Your task to perform on an android device: Open the phone app and click the voicemail tab. Image 0: 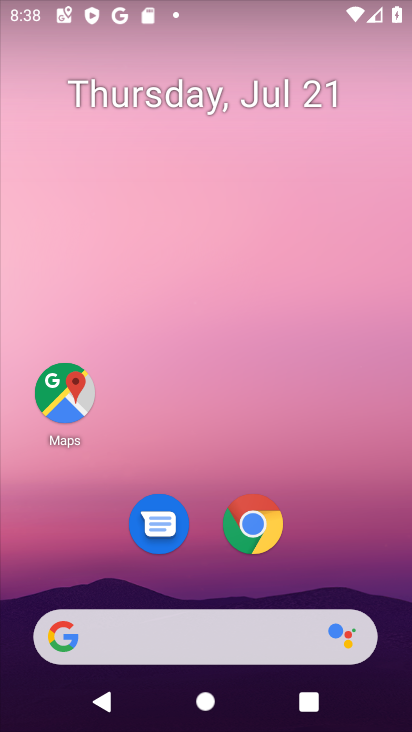
Step 0: press home button
Your task to perform on an android device: Open the phone app and click the voicemail tab. Image 1: 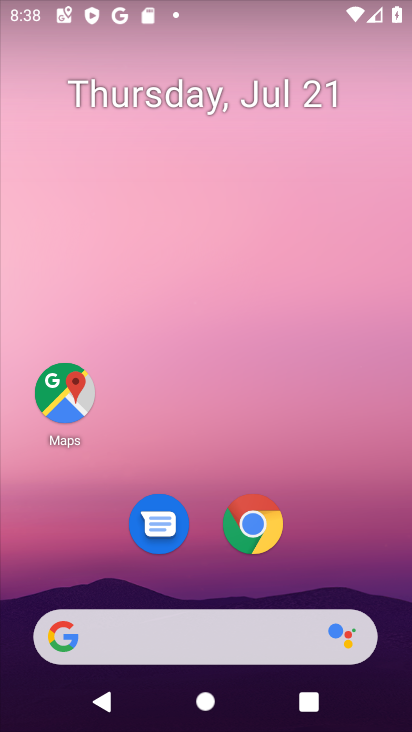
Step 1: drag from (161, 646) to (264, 244)
Your task to perform on an android device: Open the phone app and click the voicemail tab. Image 2: 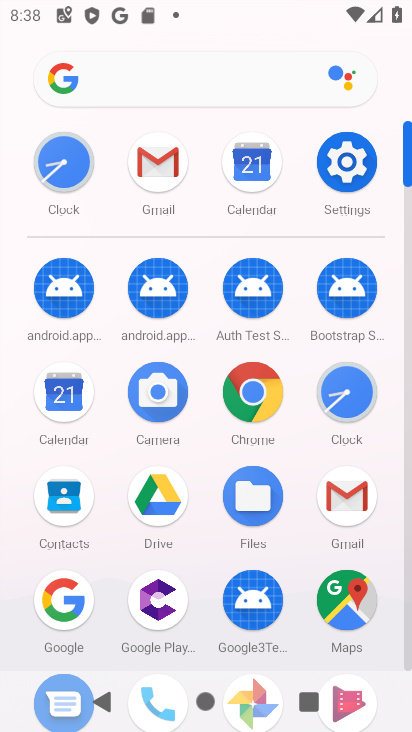
Step 2: drag from (201, 653) to (313, 177)
Your task to perform on an android device: Open the phone app and click the voicemail tab. Image 3: 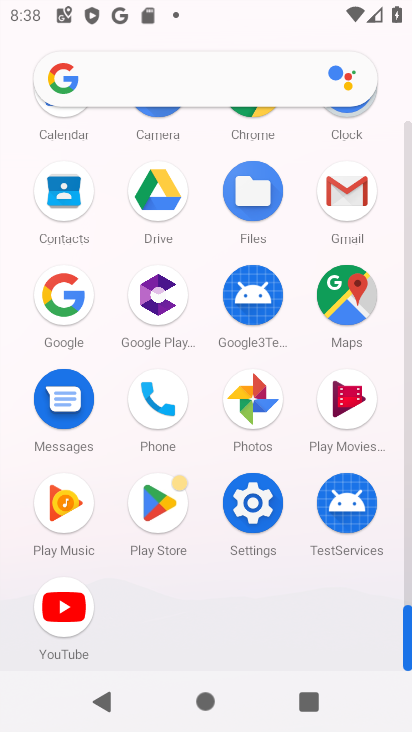
Step 3: click (153, 409)
Your task to perform on an android device: Open the phone app and click the voicemail tab. Image 4: 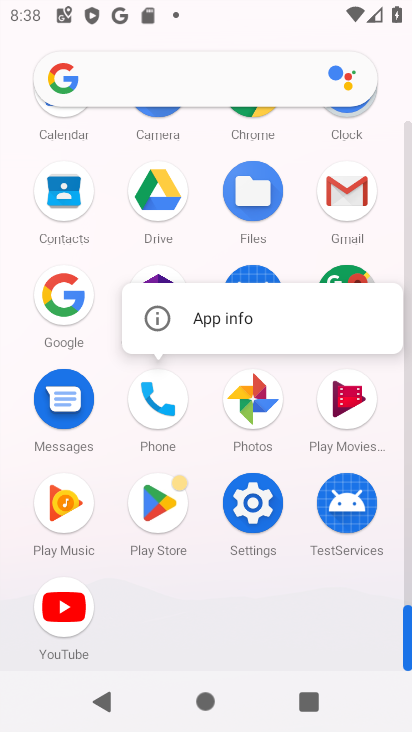
Step 4: click (161, 398)
Your task to perform on an android device: Open the phone app and click the voicemail tab. Image 5: 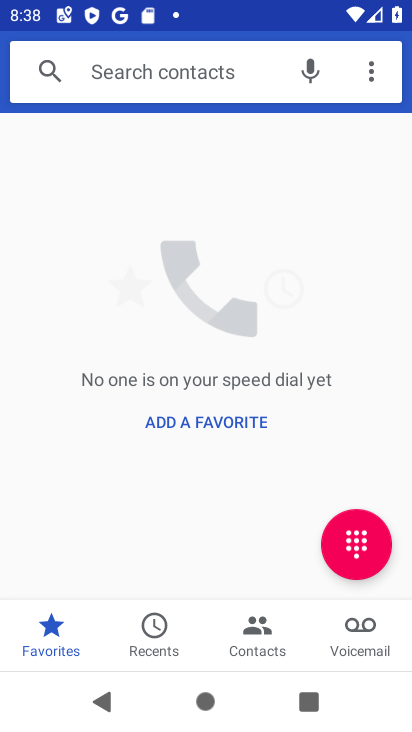
Step 5: click (368, 659)
Your task to perform on an android device: Open the phone app and click the voicemail tab. Image 6: 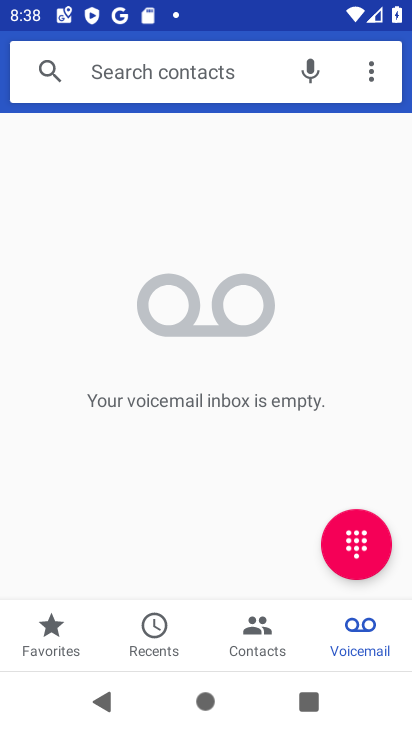
Step 6: task complete